Your task to perform on an android device: turn on javascript in the chrome app Image 0: 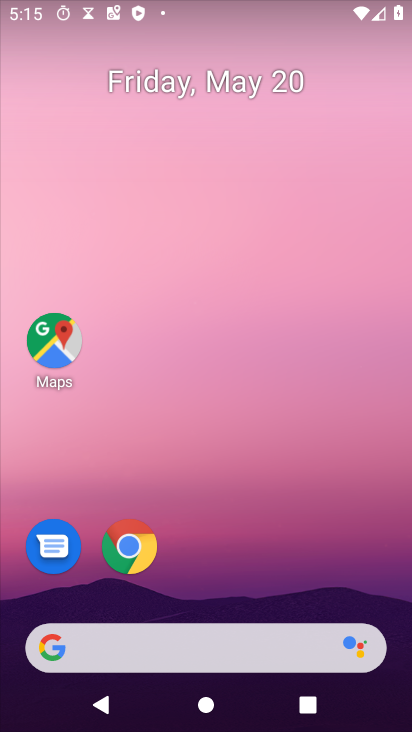
Step 0: click (130, 550)
Your task to perform on an android device: turn on javascript in the chrome app Image 1: 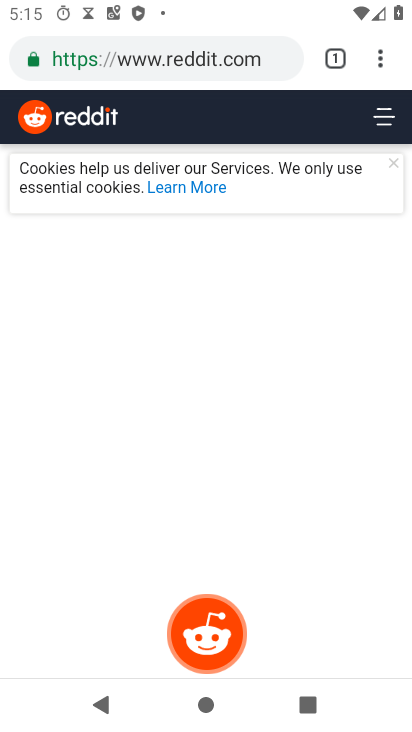
Step 1: click (379, 63)
Your task to perform on an android device: turn on javascript in the chrome app Image 2: 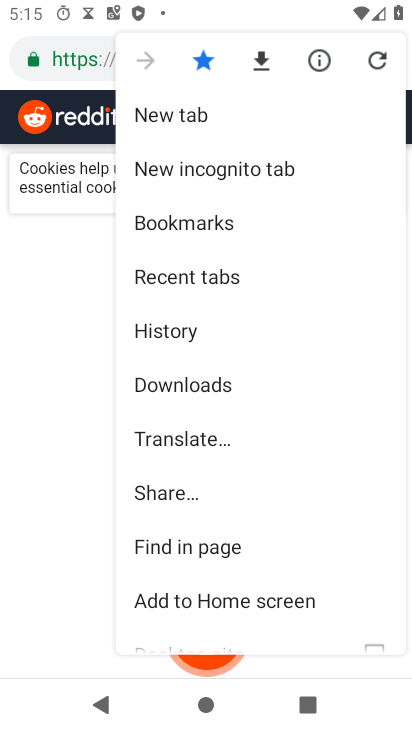
Step 2: drag from (201, 478) to (248, 396)
Your task to perform on an android device: turn on javascript in the chrome app Image 3: 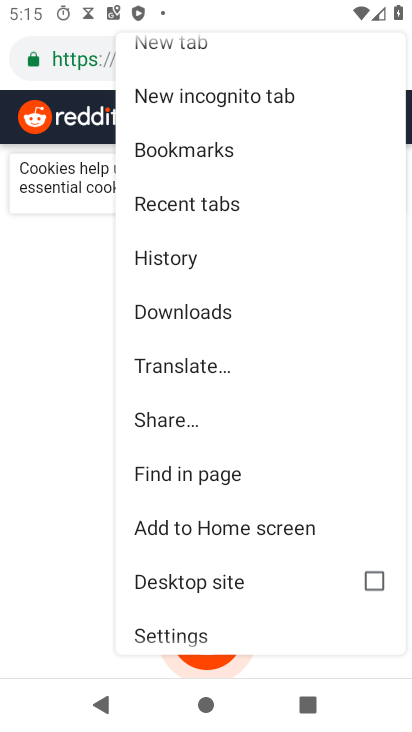
Step 3: drag from (191, 550) to (262, 433)
Your task to perform on an android device: turn on javascript in the chrome app Image 4: 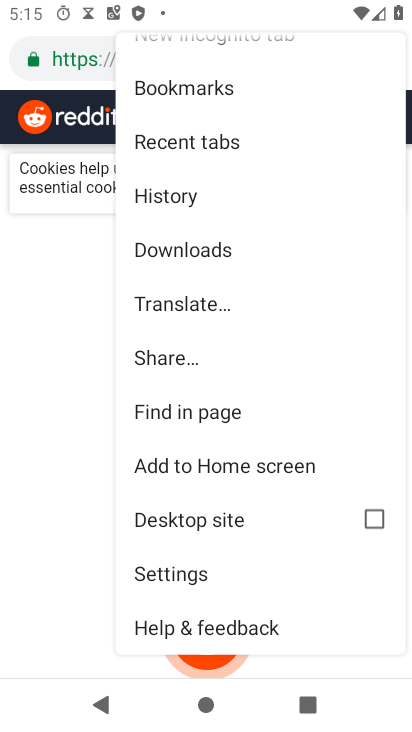
Step 4: click (166, 575)
Your task to perform on an android device: turn on javascript in the chrome app Image 5: 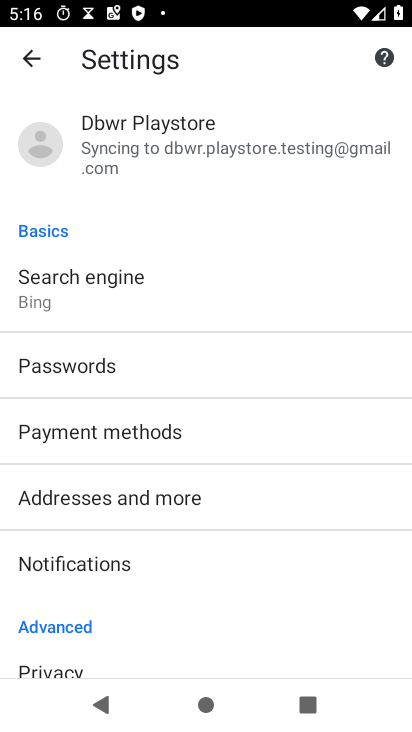
Step 5: drag from (98, 600) to (115, 469)
Your task to perform on an android device: turn on javascript in the chrome app Image 6: 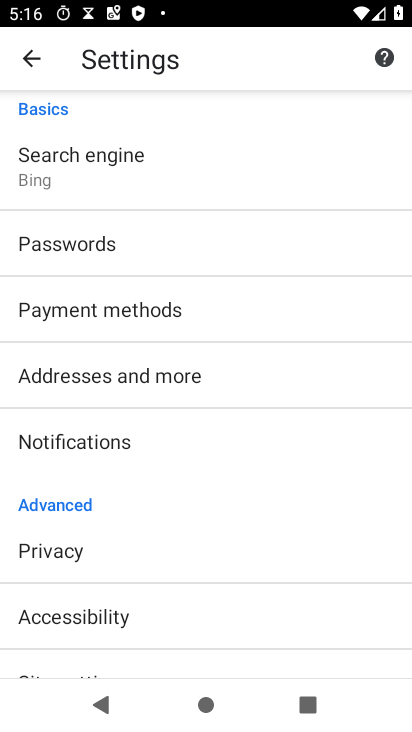
Step 6: drag from (119, 622) to (193, 506)
Your task to perform on an android device: turn on javascript in the chrome app Image 7: 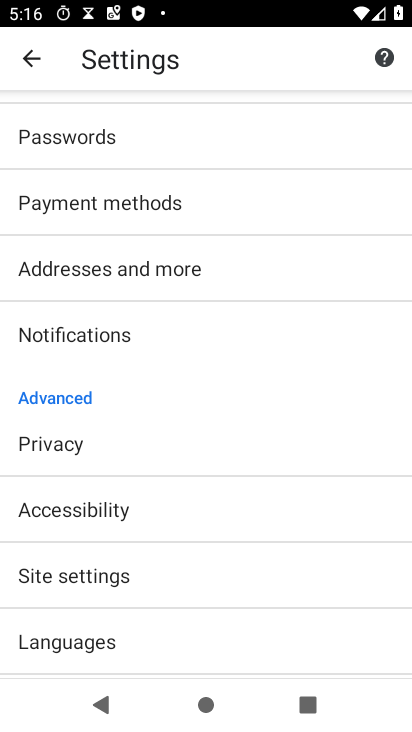
Step 7: click (102, 575)
Your task to perform on an android device: turn on javascript in the chrome app Image 8: 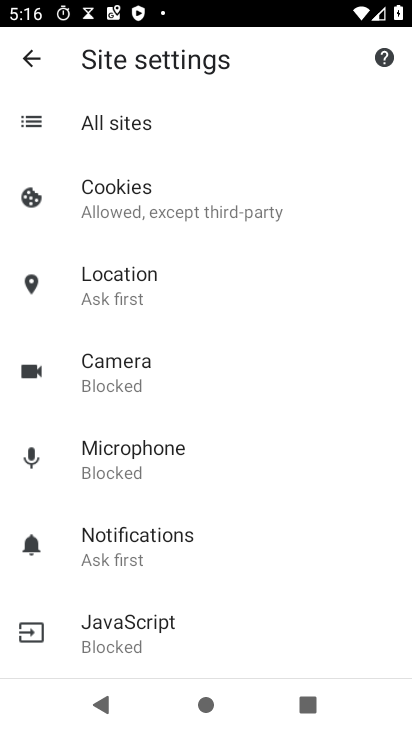
Step 8: drag from (156, 588) to (168, 498)
Your task to perform on an android device: turn on javascript in the chrome app Image 9: 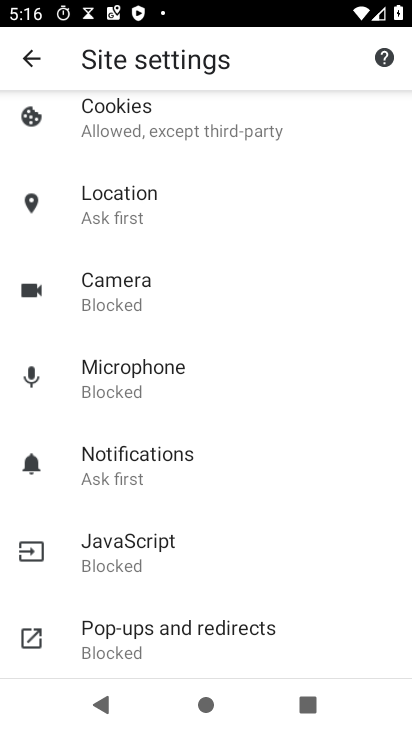
Step 9: click (132, 554)
Your task to perform on an android device: turn on javascript in the chrome app Image 10: 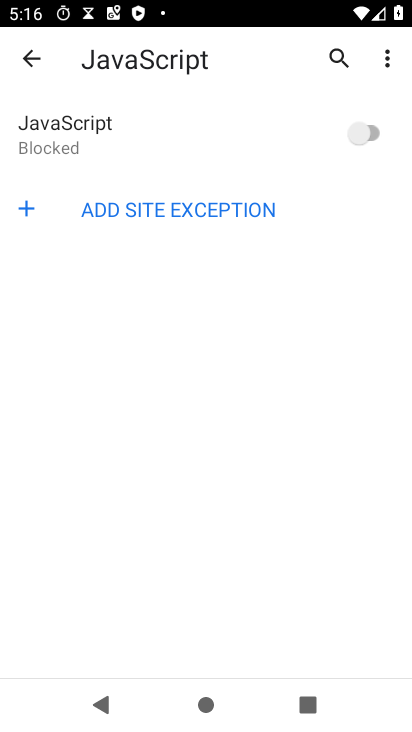
Step 10: click (363, 136)
Your task to perform on an android device: turn on javascript in the chrome app Image 11: 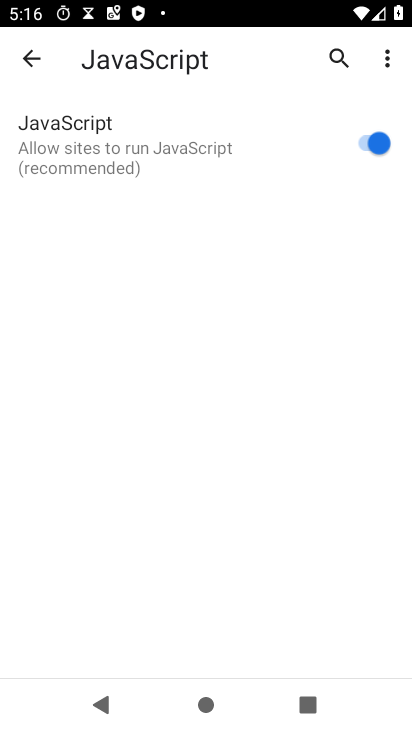
Step 11: task complete